Your task to perform on an android device: Clear the cart on bestbuy. Search for usb-c to usb-a on bestbuy, select the first entry, and add it to the cart. Image 0: 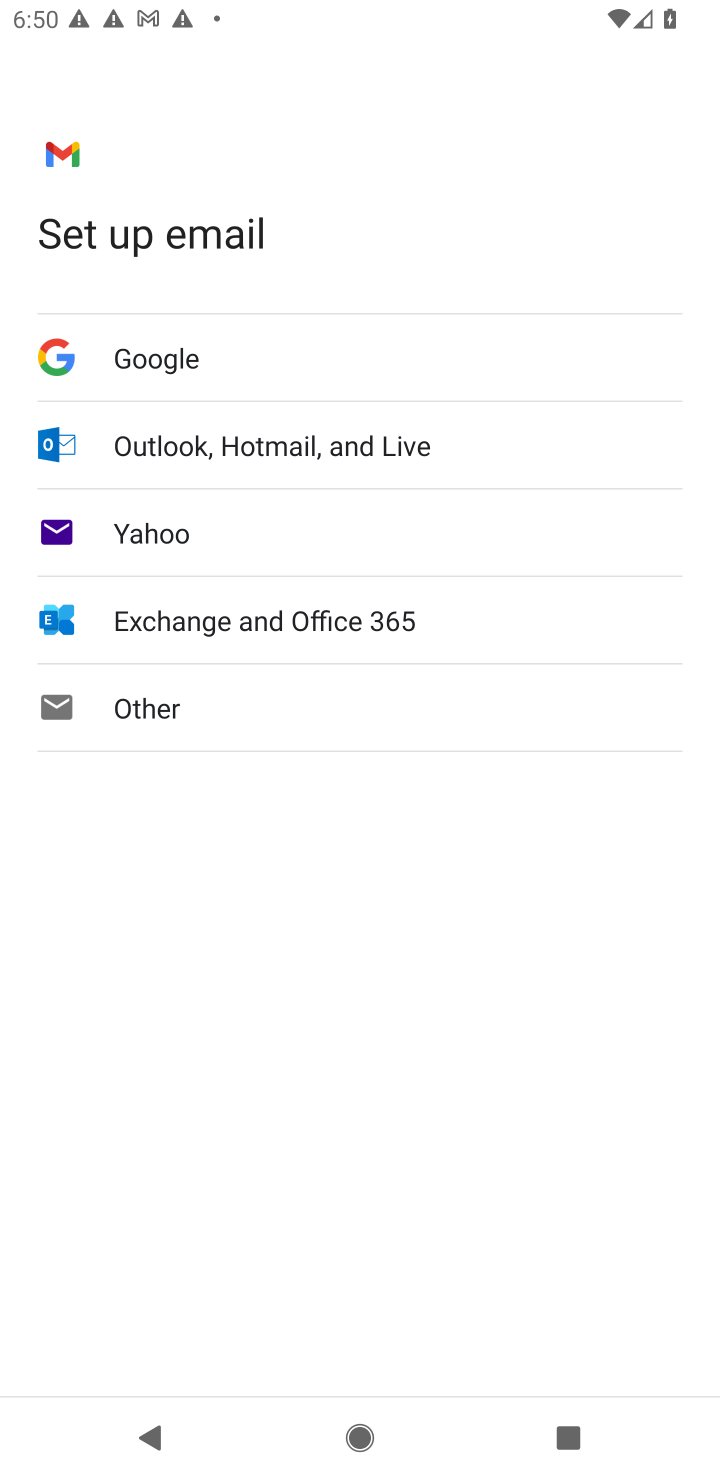
Step 0: press home button
Your task to perform on an android device: Clear the cart on bestbuy. Search for usb-c to usb-a on bestbuy, select the first entry, and add it to the cart. Image 1: 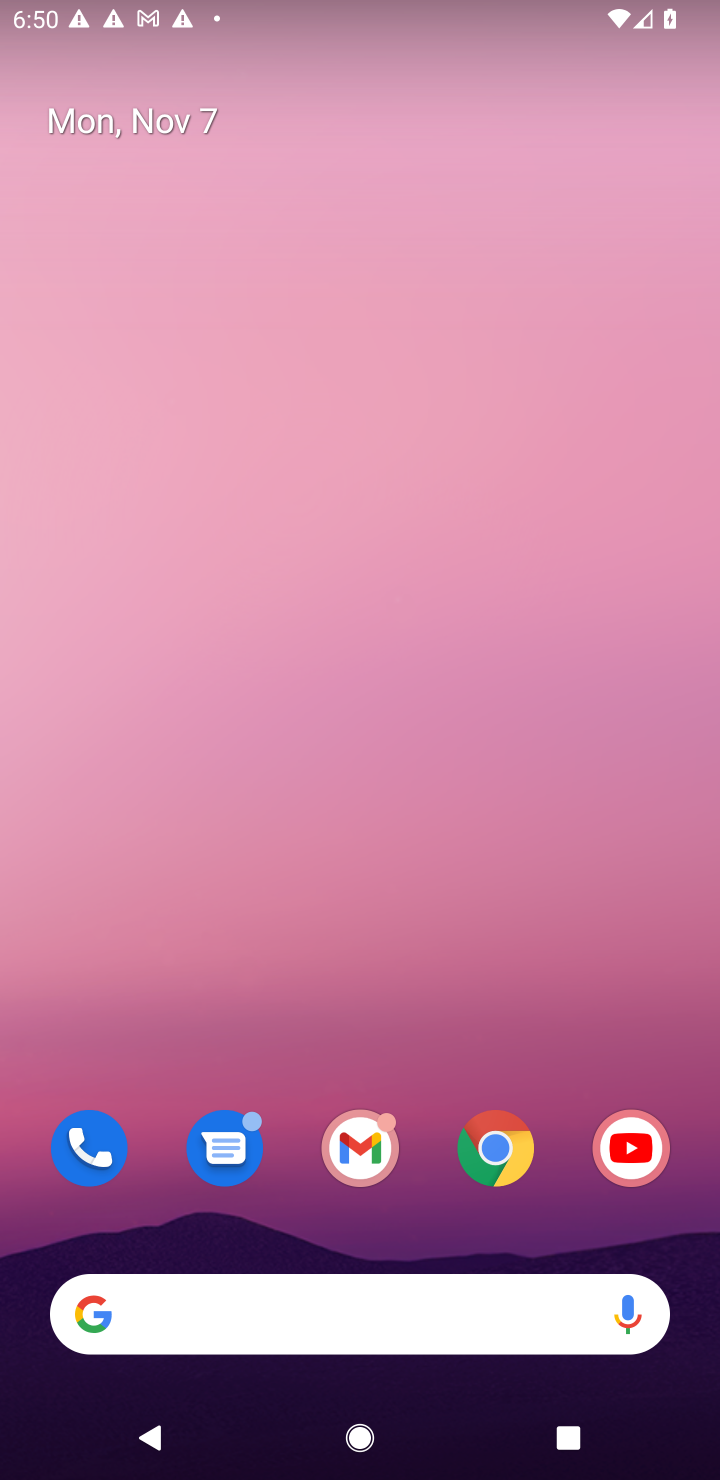
Step 1: click (495, 1170)
Your task to perform on an android device: Clear the cart on bestbuy. Search for usb-c to usb-a on bestbuy, select the first entry, and add it to the cart. Image 2: 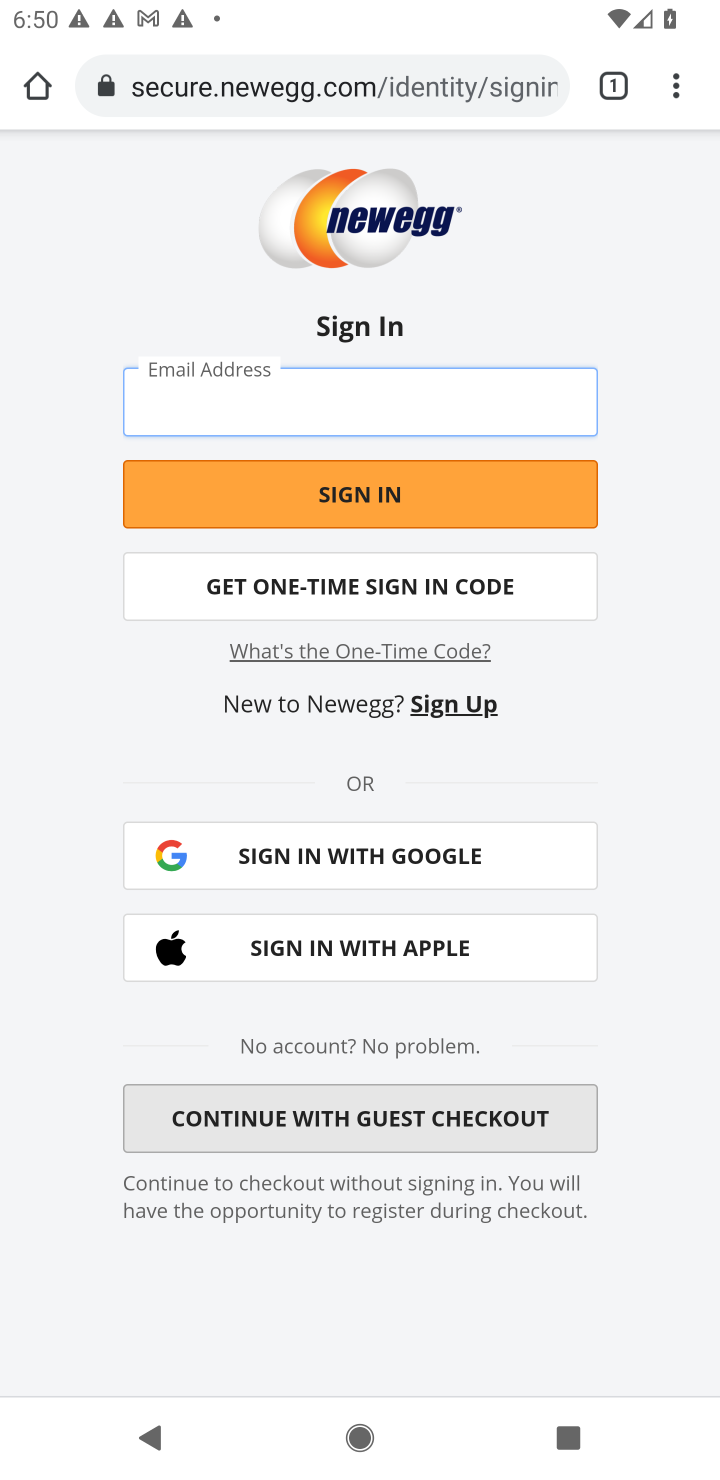
Step 2: click (299, 90)
Your task to perform on an android device: Clear the cart on bestbuy. Search for usb-c to usb-a on bestbuy, select the first entry, and add it to the cart. Image 3: 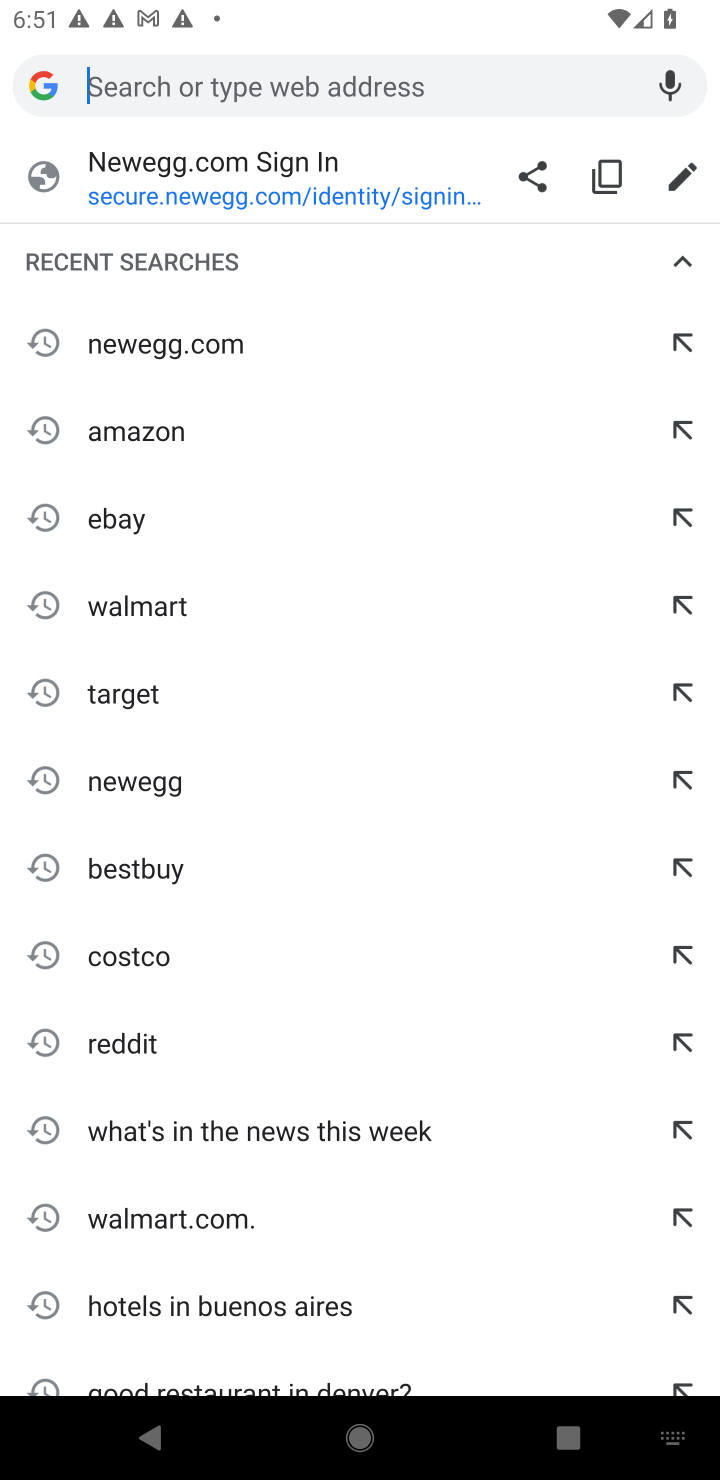
Step 3: click (160, 866)
Your task to perform on an android device: Clear the cart on bestbuy. Search for usb-c to usb-a on bestbuy, select the first entry, and add it to the cart. Image 4: 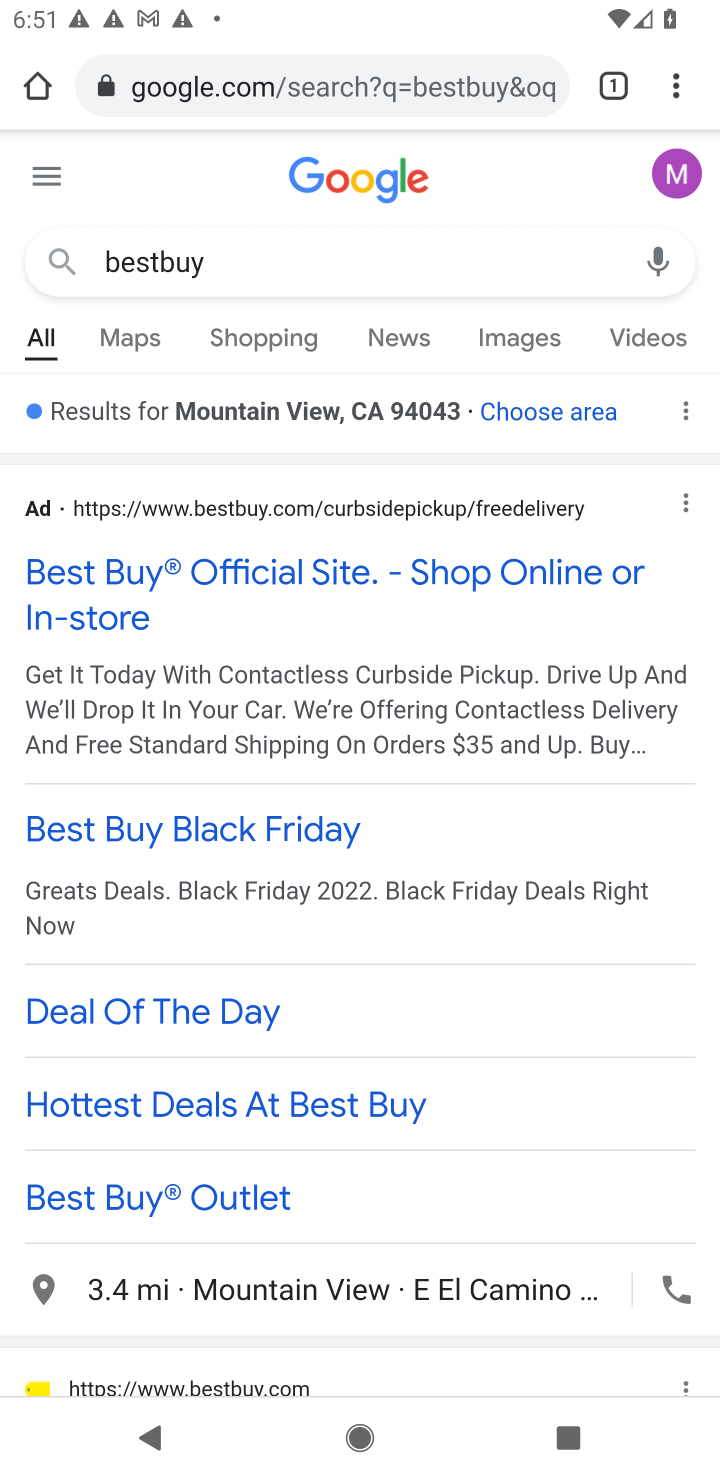
Step 4: drag from (355, 975) to (358, 735)
Your task to perform on an android device: Clear the cart on bestbuy. Search for usb-c to usb-a on bestbuy, select the first entry, and add it to the cart. Image 5: 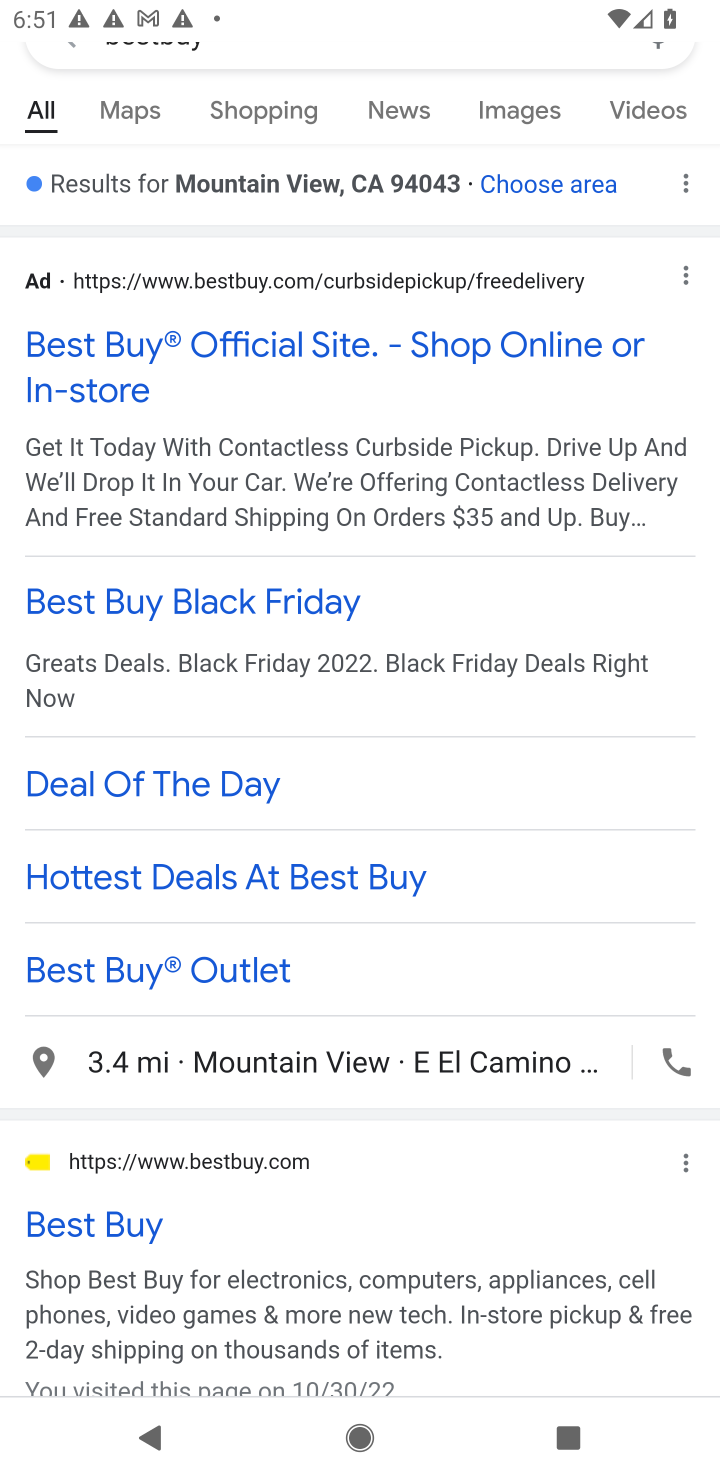
Step 5: click (243, 1159)
Your task to perform on an android device: Clear the cart on bestbuy. Search for usb-c to usb-a on bestbuy, select the first entry, and add it to the cart. Image 6: 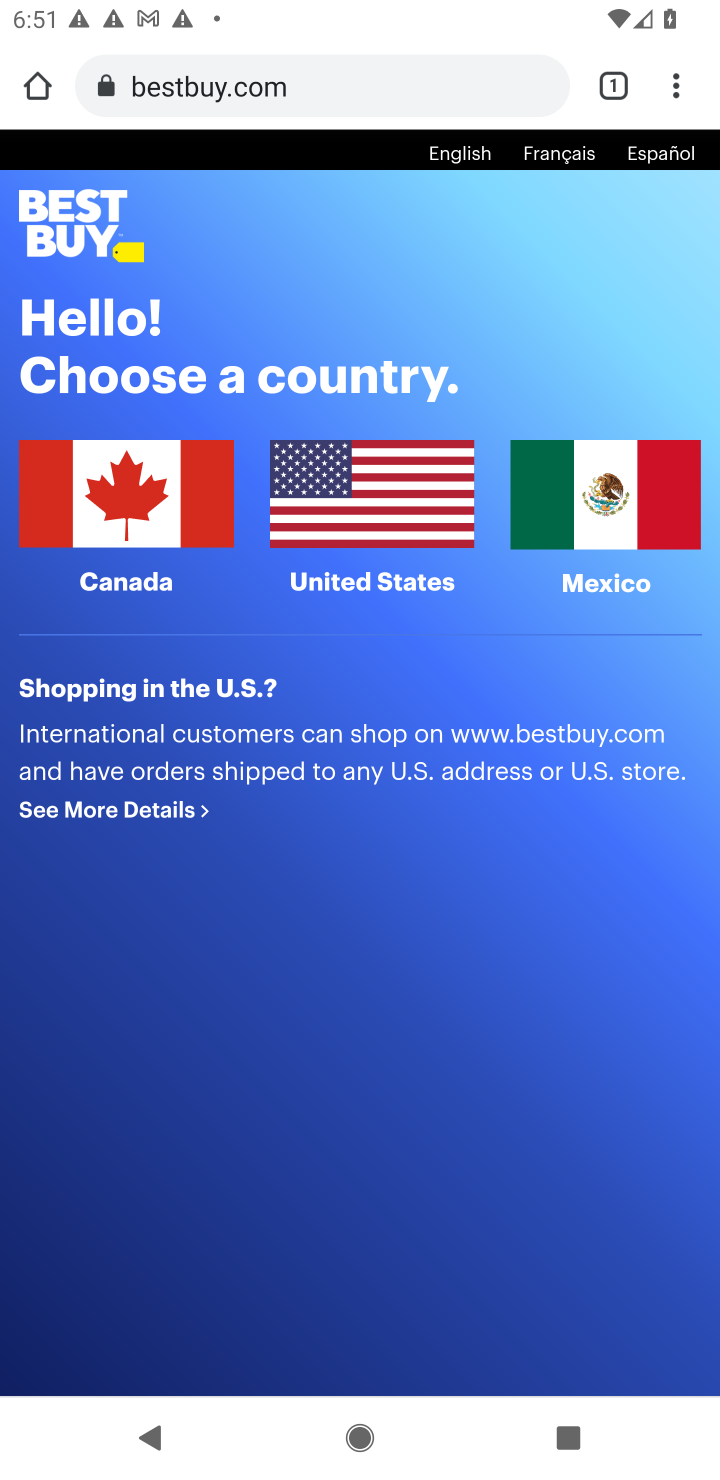
Step 6: click (416, 487)
Your task to perform on an android device: Clear the cart on bestbuy. Search for usb-c to usb-a on bestbuy, select the first entry, and add it to the cart. Image 7: 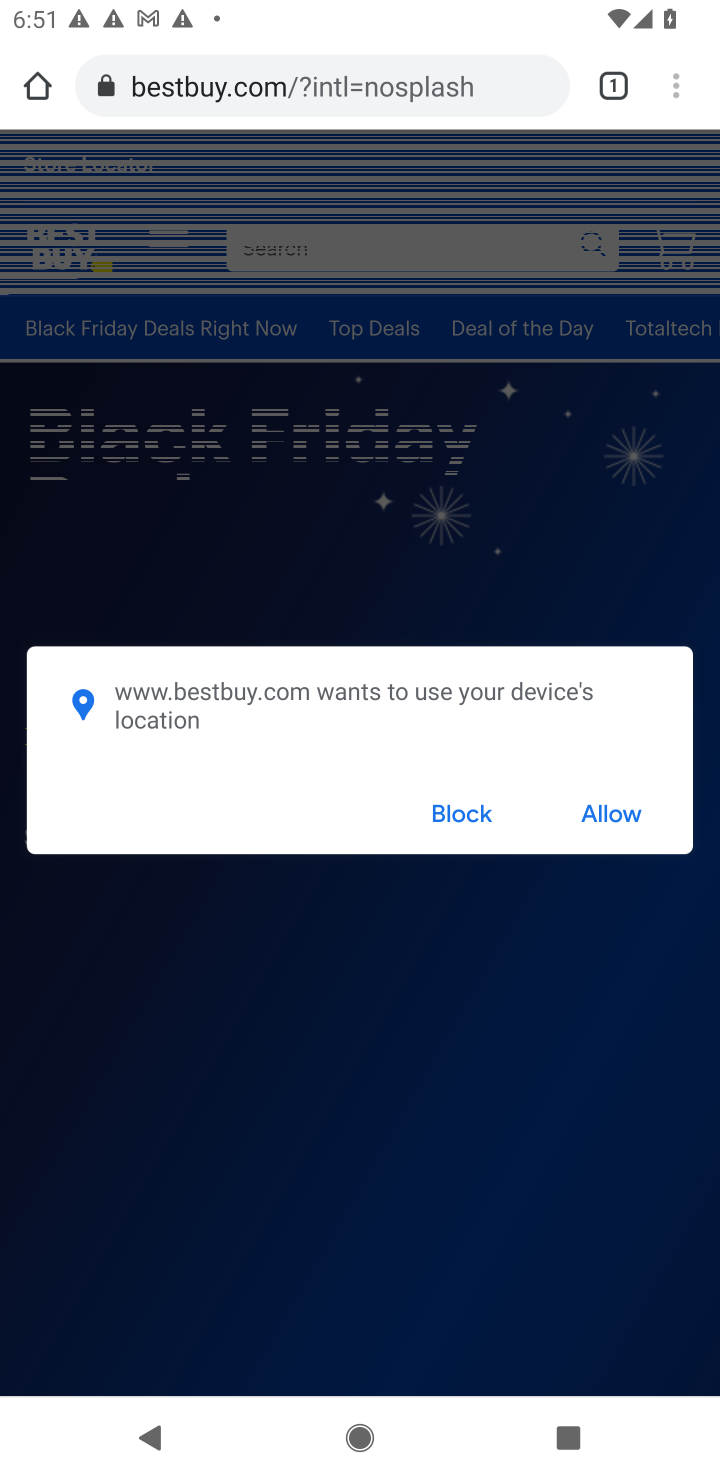
Step 7: click (453, 800)
Your task to perform on an android device: Clear the cart on bestbuy. Search for usb-c to usb-a on bestbuy, select the first entry, and add it to the cart. Image 8: 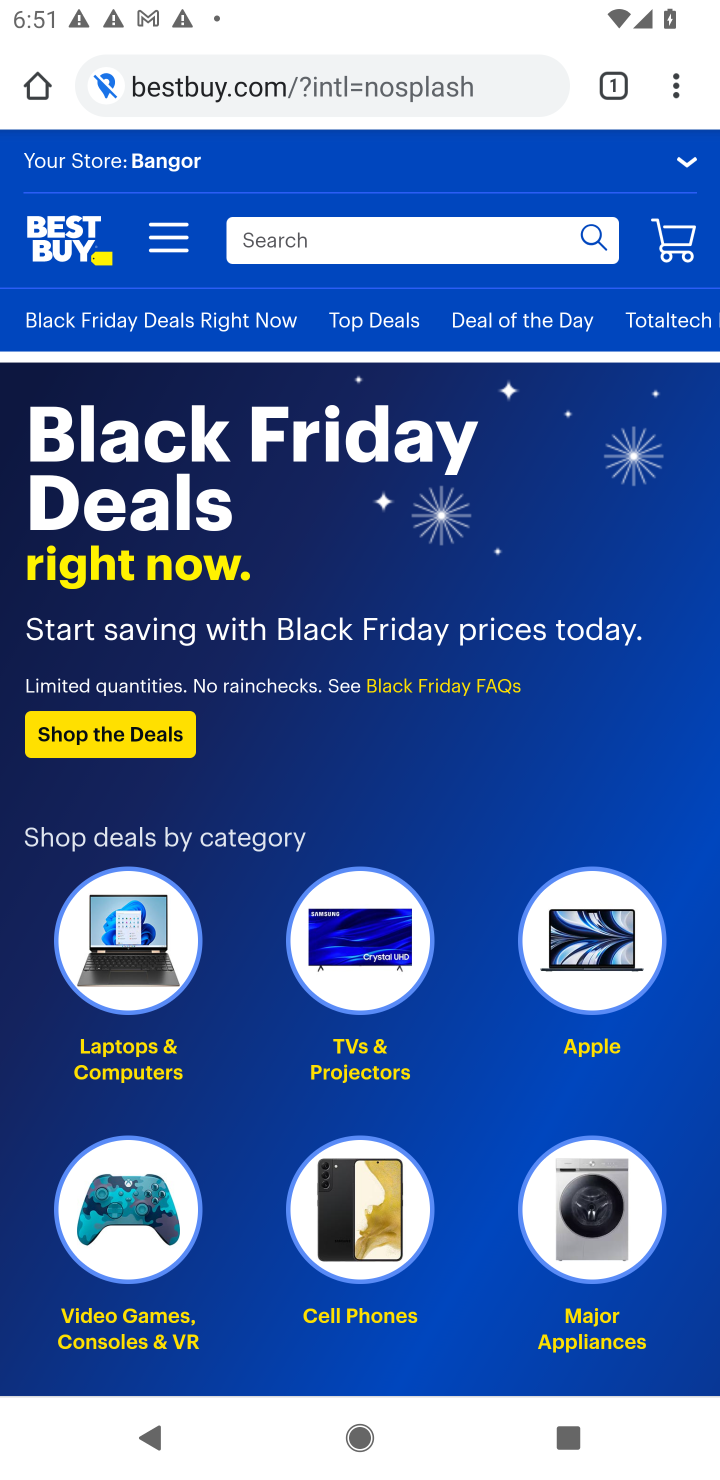
Step 8: click (687, 238)
Your task to perform on an android device: Clear the cart on bestbuy. Search for usb-c to usb-a on bestbuy, select the first entry, and add it to the cart. Image 9: 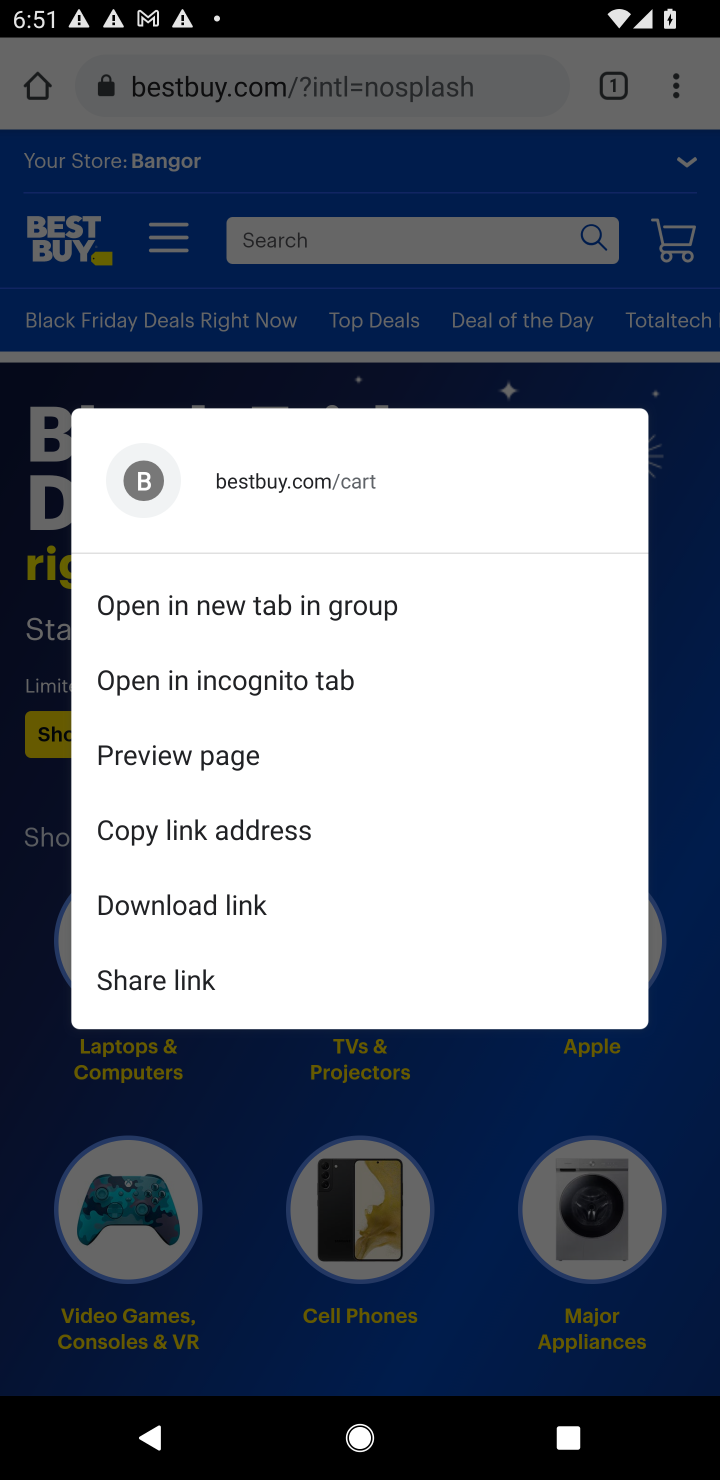
Step 9: click (616, 280)
Your task to perform on an android device: Clear the cart on bestbuy. Search for usb-c to usb-a on bestbuy, select the first entry, and add it to the cart. Image 10: 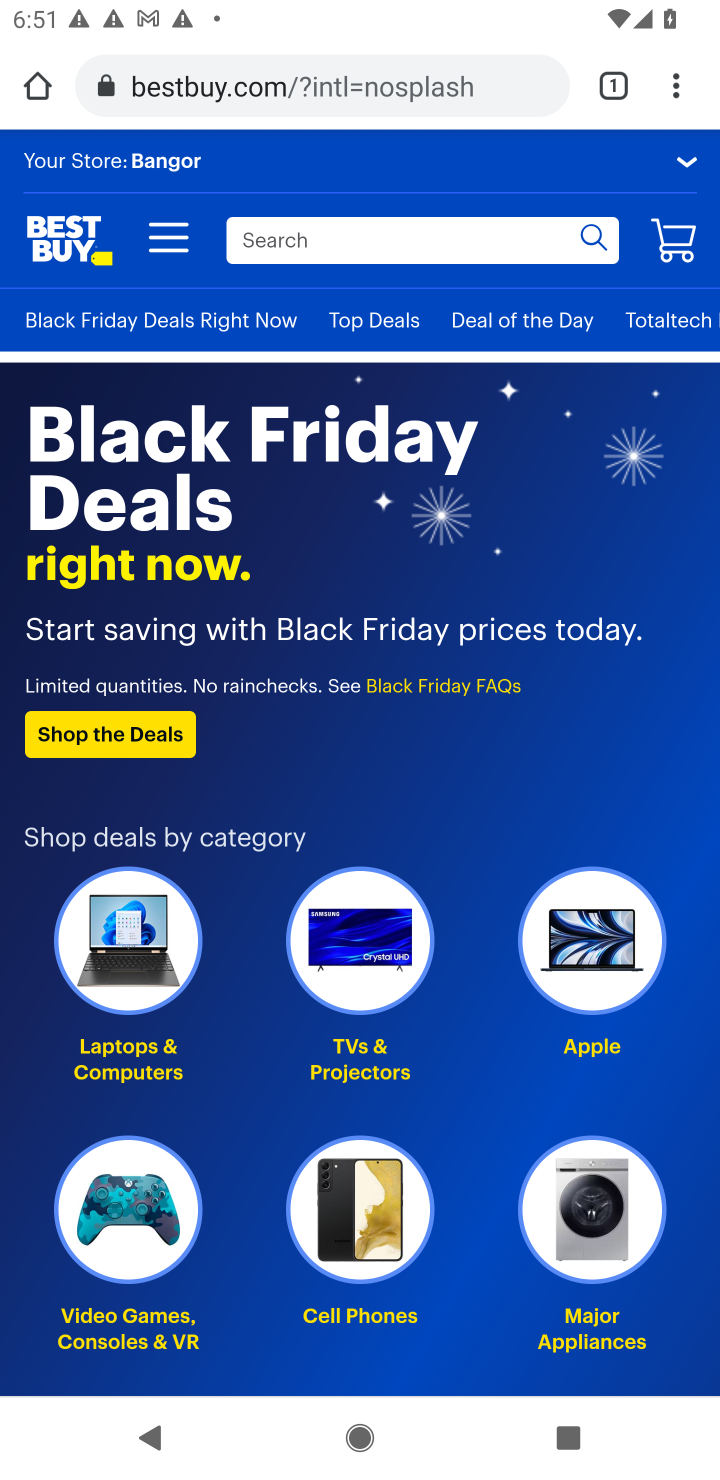
Step 10: click (676, 254)
Your task to perform on an android device: Clear the cart on bestbuy. Search for usb-c to usb-a on bestbuy, select the first entry, and add it to the cart. Image 11: 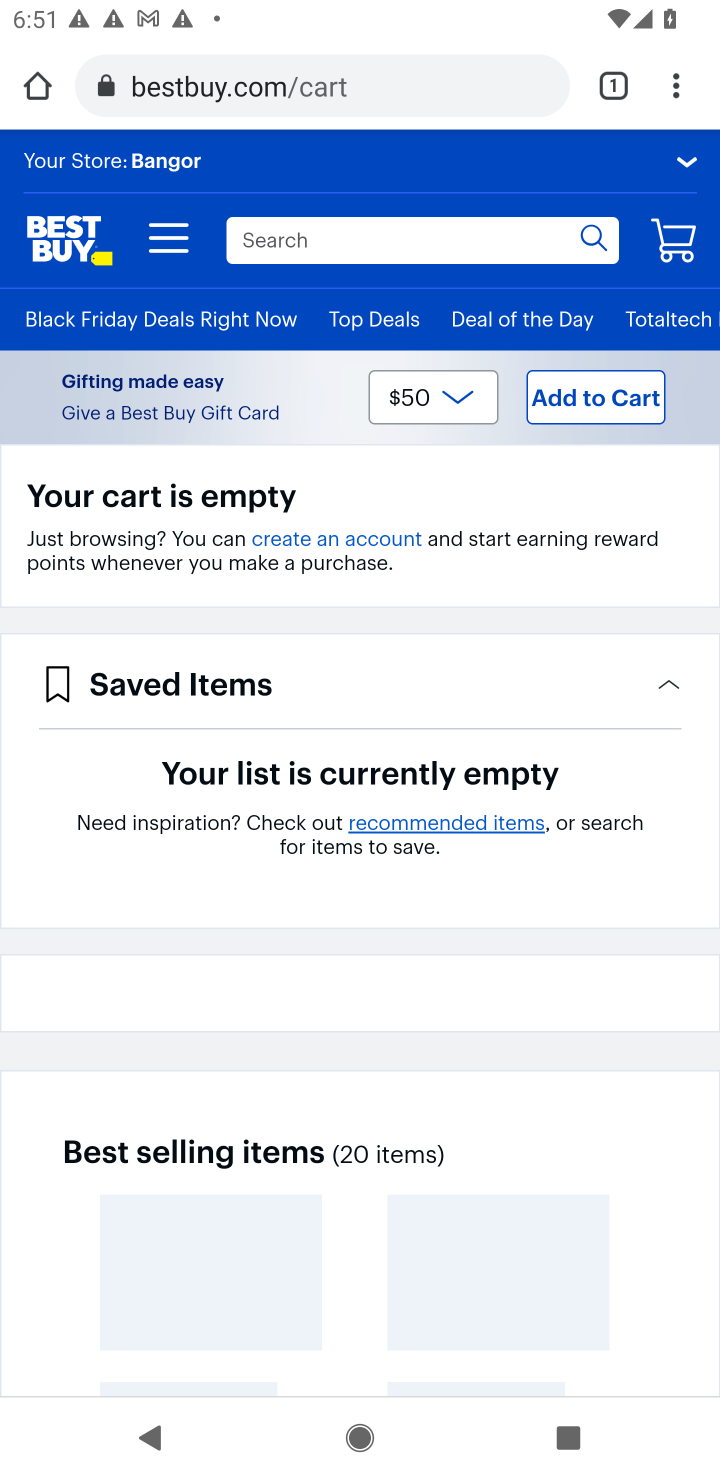
Step 11: click (474, 244)
Your task to perform on an android device: Clear the cart on bestbuy. Search for usb-c to usb-a on bestbuy, select the first entry, and add it to the cart. Image 12: 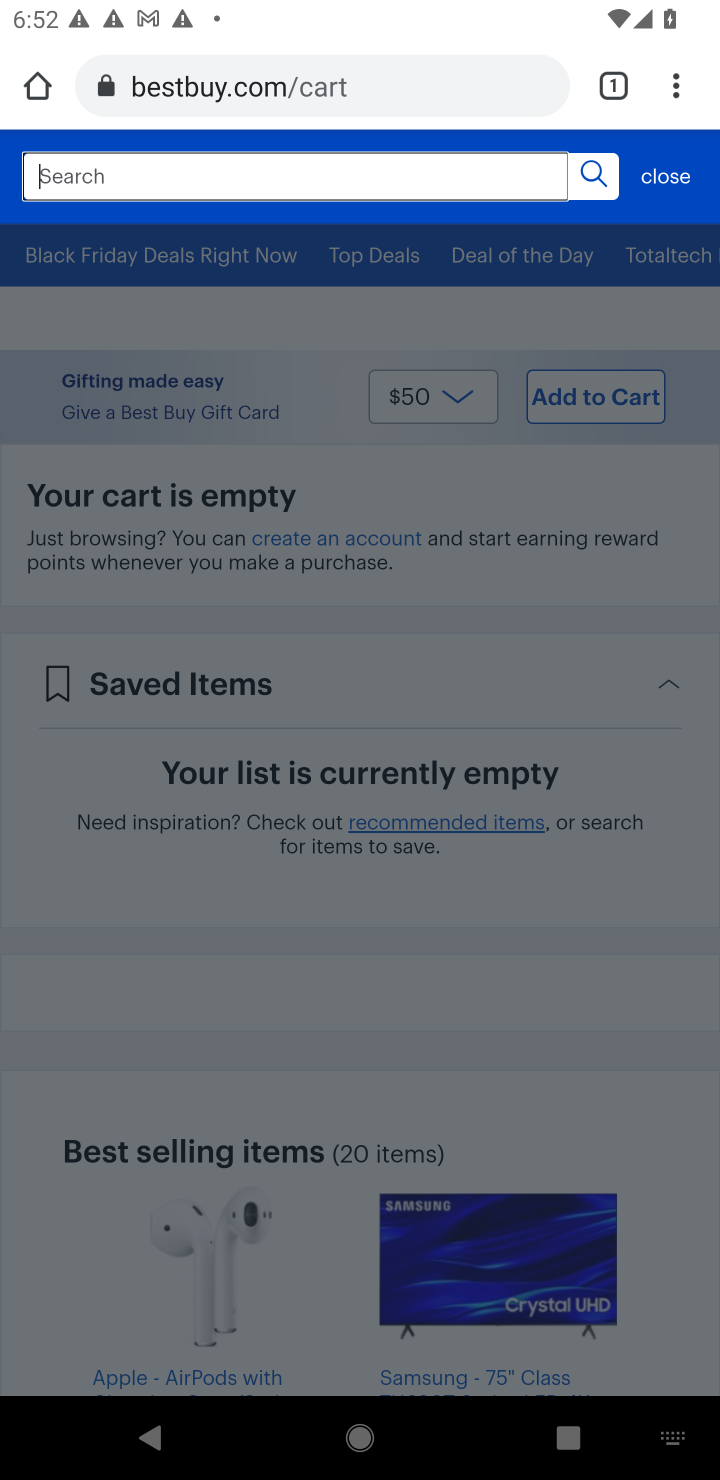
Step 12: type "usb-c to usb-a "
Your task to perform on an android device: Clear the cart on bestbuy. Search for usb-c to usb-a on bestbuy, select the first entry, and add it to the cart. Image 13: 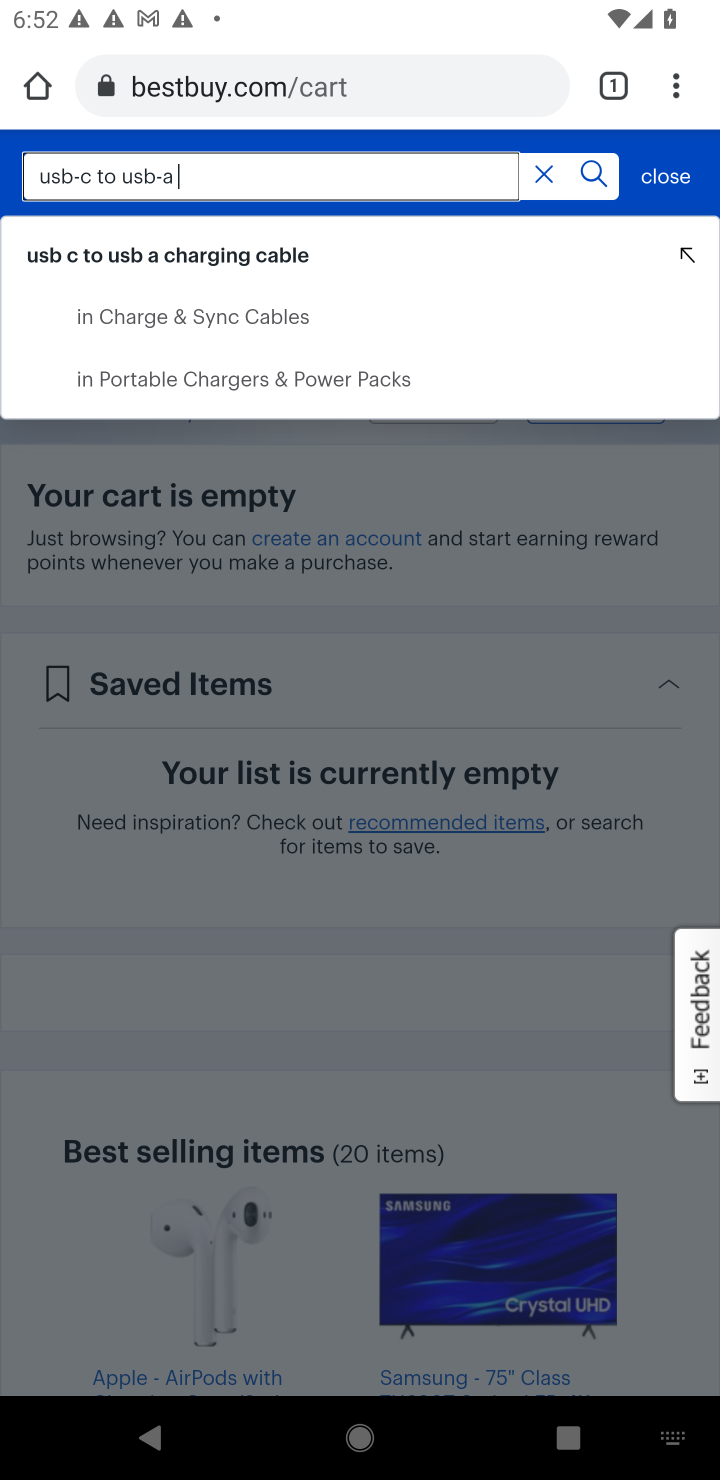
Step 13: click (675, 641)
Your task to perform on an android device: Clear the cart on bestbuy. Search for usb-c to usb-a on bestbuy, select the first entry, and add it to the cart. Image 14: 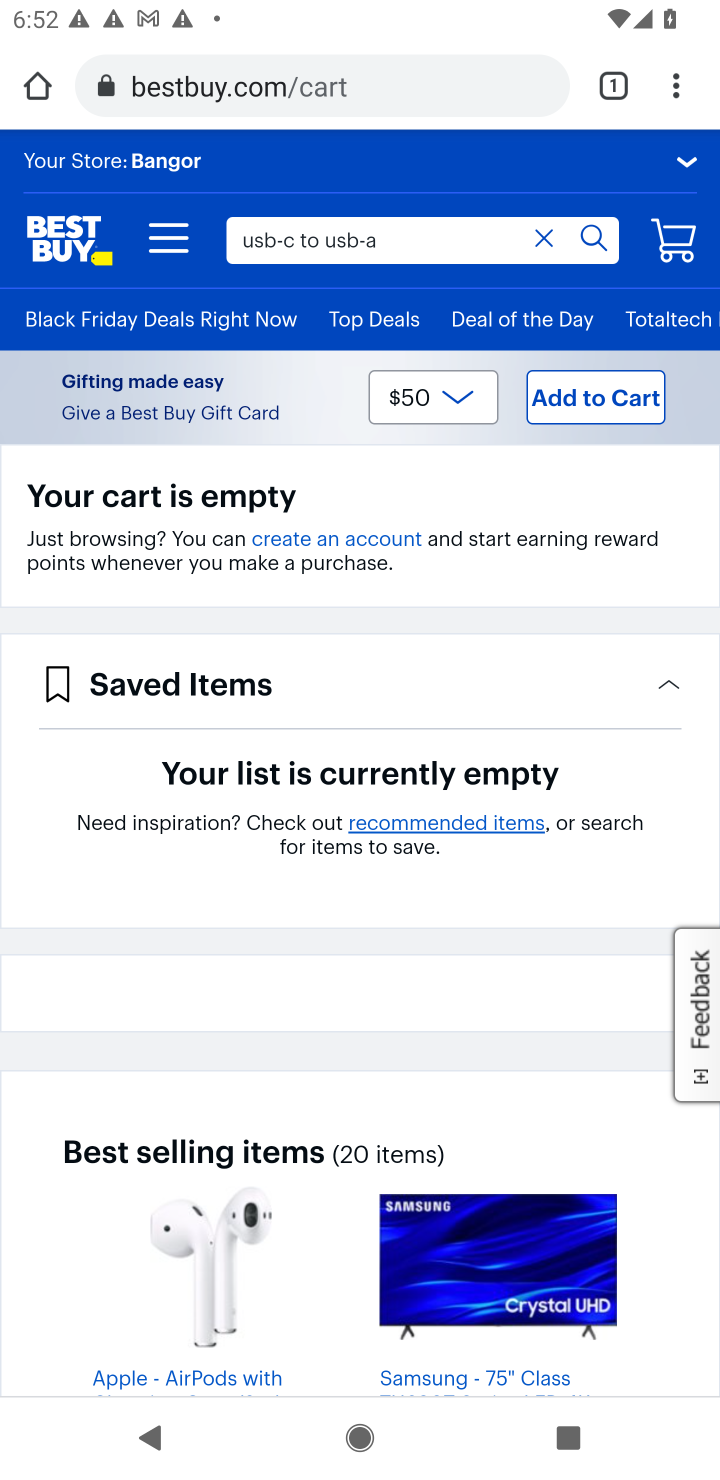
Step 14: task complete